Your task to perform on an android device: turn off wifi Image 0: 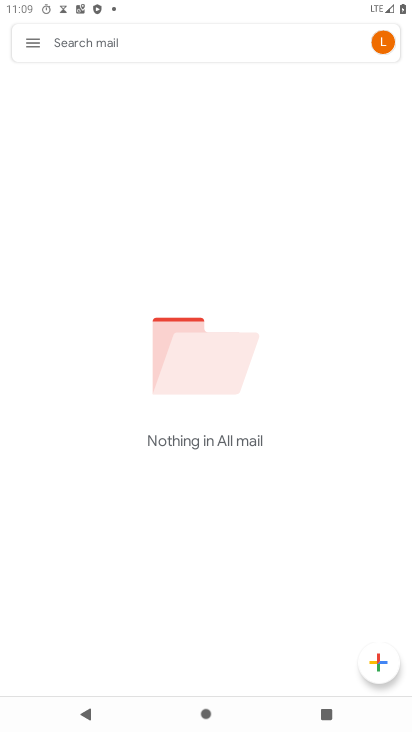
Step 0: press home button
Your task to perform on an android device: turn off wifi Image 1: 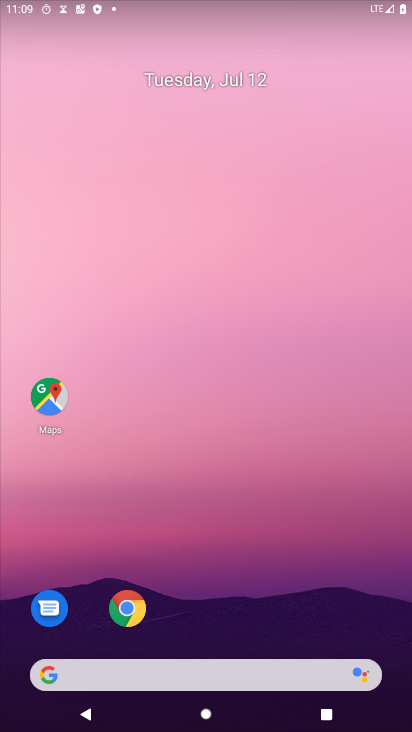
Step 1: drag from (270, 579) to (370, 14)
Your task to perform on an android device: turn off wifi Image 2: 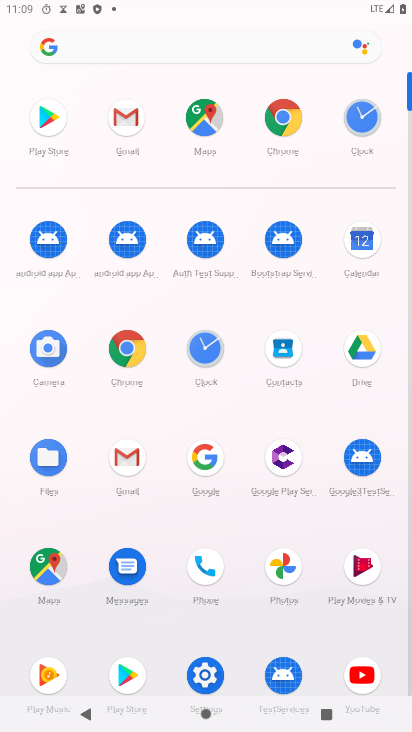
Step 2: click (199, 663)
Your task to perform on an android device: turn off wifi Image 3: 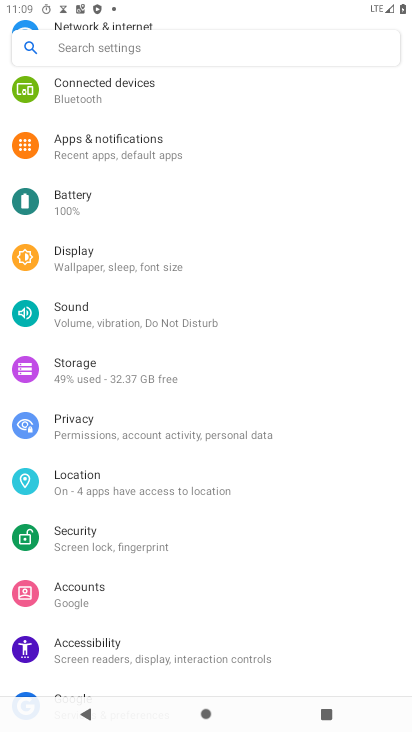
Step 3: drag from (197, 101) to (205, 252)
Your task to perform on an android device: turn off wifi Image 4: 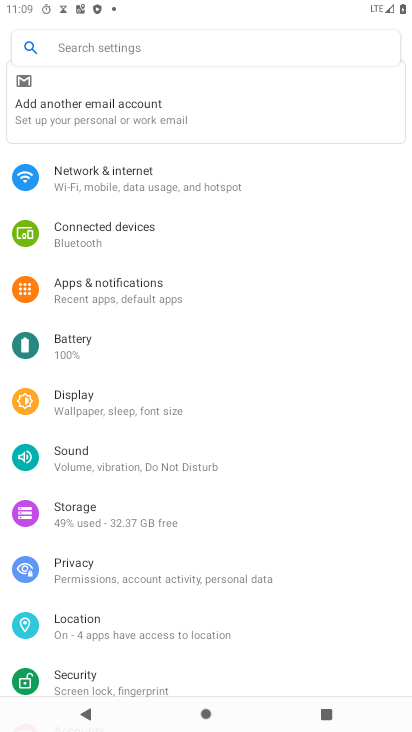
Step 4: click (244, 179)
Your task to perform on an android device: turn off wifi Image 5: 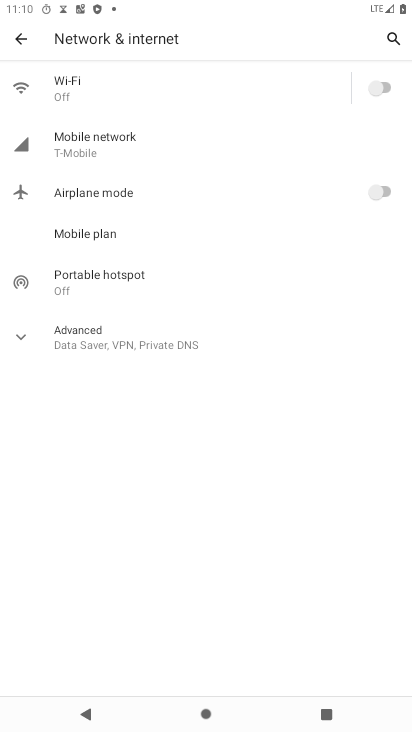
Step 5: task complete